Your task to perform on an android device: delete browsing data in the chrome app Image 0: 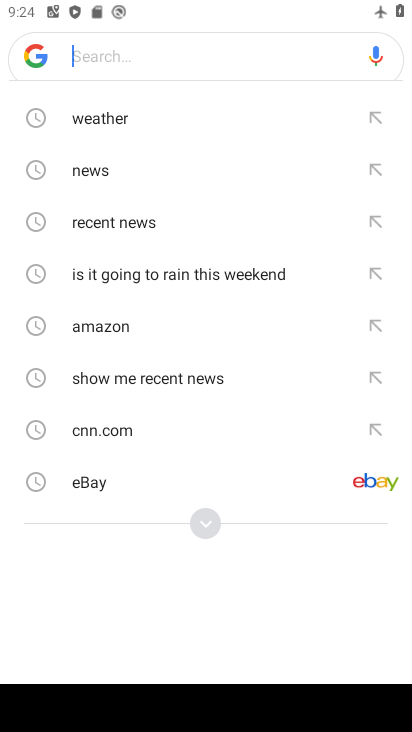
Step 0: press home button
Your task to perform on an android device: delete browsing data in the chrome app Image 1: 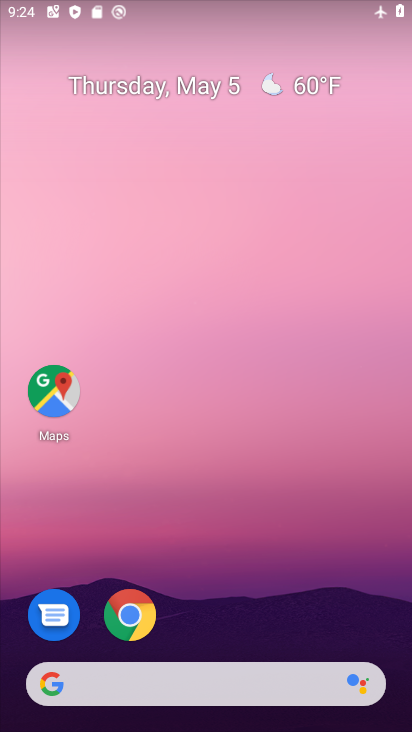
Step 1: click (129, 619)
Your task to perform on an android device: delete browsing data in the chrome app Image 2: 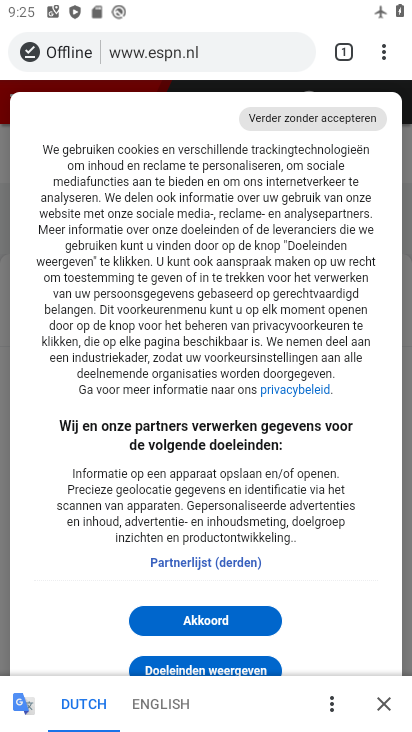
Step 2: click (377, 52)
Your task to perform on an android device: delete browsing data in the chrome app Image 3: 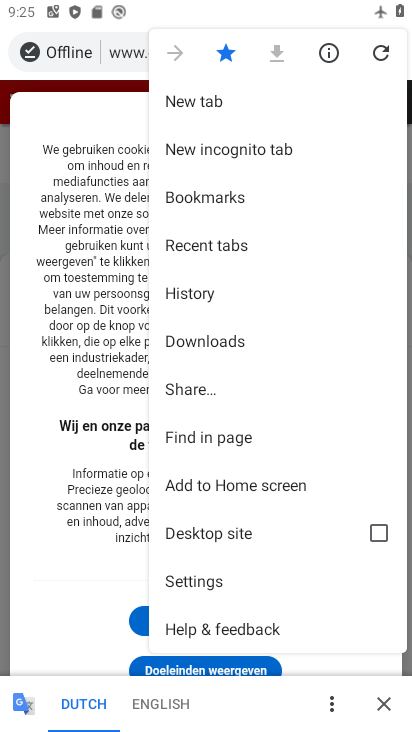
Step 3: click (190, 579)
Your task to perform on an android device: delete browsing data in the chrome app Image 4: 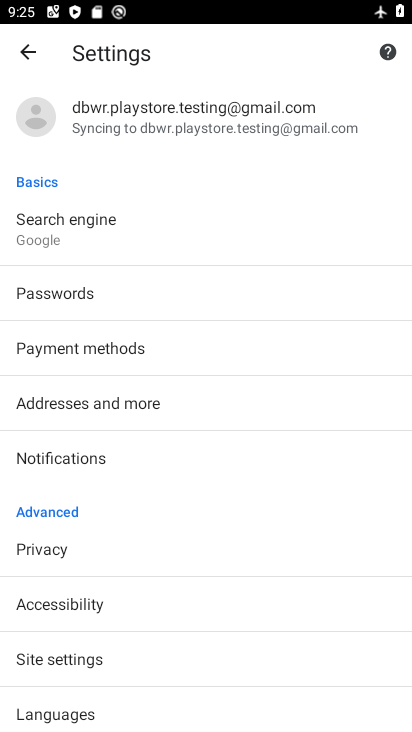
Step 4: drag from (184, 539) to (294, 88)
Your task to perform on an android device: delete browsing data in the chrome app Image 5: 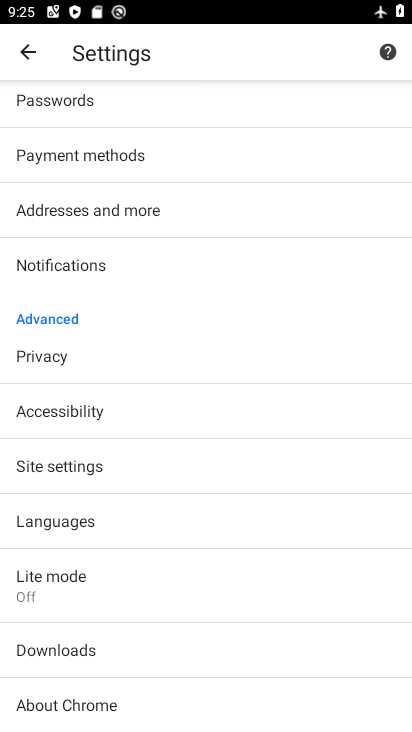
Step 5: click (118, 359)
Your task to perform on an android device: delete browsing data in the chrome app Image 6: 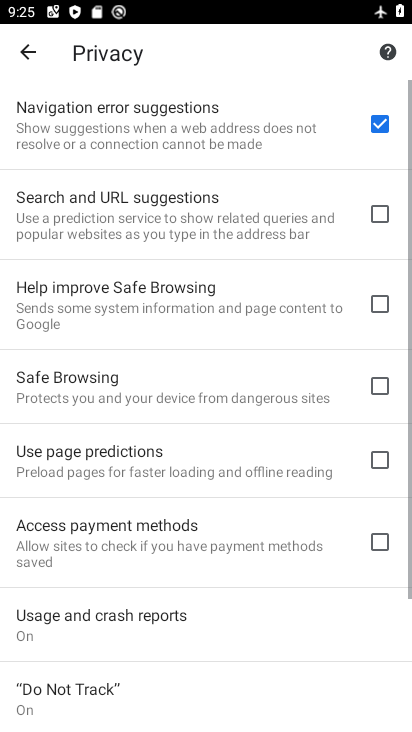
Step 6: drag from (263, 555) to (374, 28)
Your task to perform on an android device: delete browsing data in the chrome app Image 7: 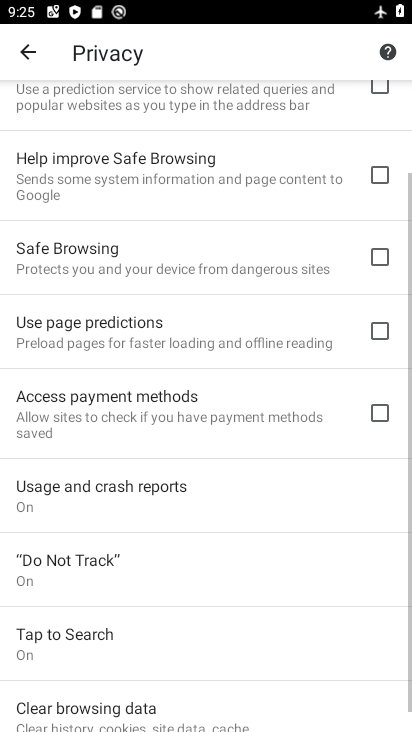
Step 7: click (151, 699)
Your task to perform on an android device: delete browsing data in the chrome app Image 8: 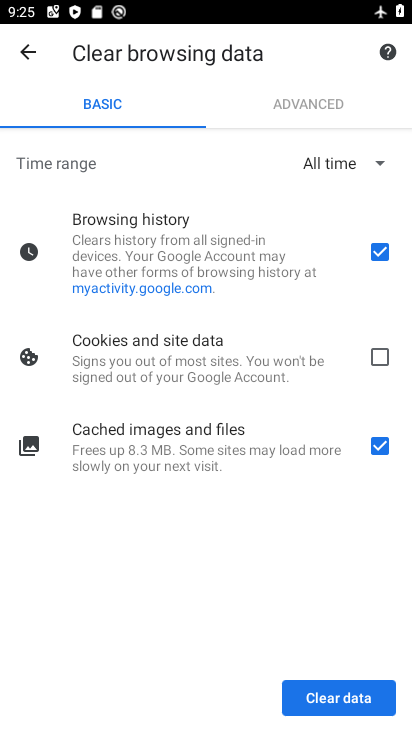
Step 8: click (375, 451)
Your task to perform on an android device: delete browsing data in the chrome app Image 9: 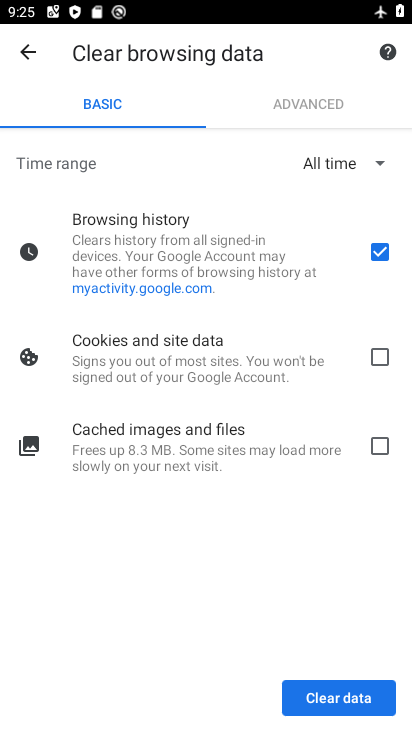
Step 9: click (326, 698)
Your task to perform on an android device: delete browsing data in the chrome app Image 10: 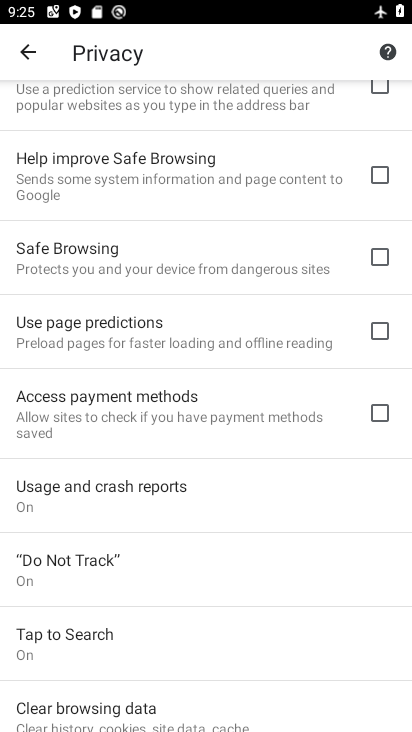
Step 10: task complete